Your task to perform on an android device: Open internet settings Image 0: 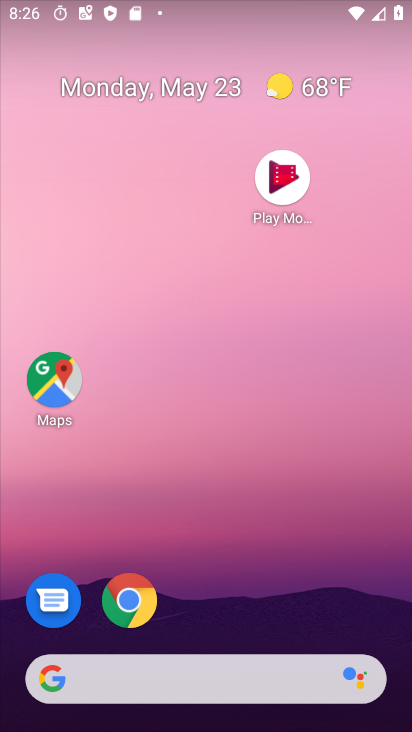
Step 0: drag from (266, 714) to (225, 260)
Your task to perform on an android device: Open internet settings Image 1: 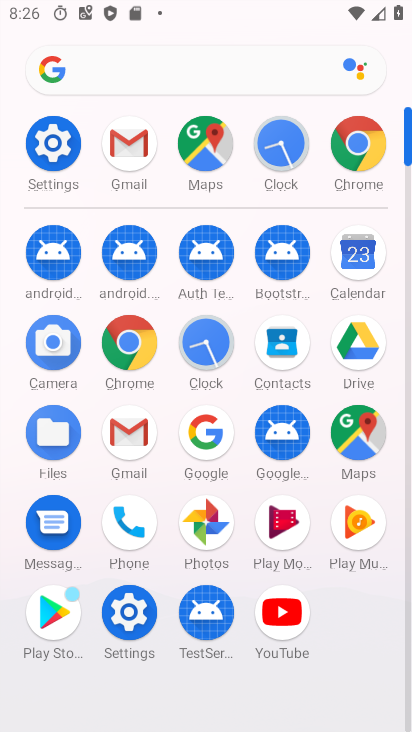
Step 1: click (59, 129)
Your task to perform on an android device: Open internet settings Image 2: 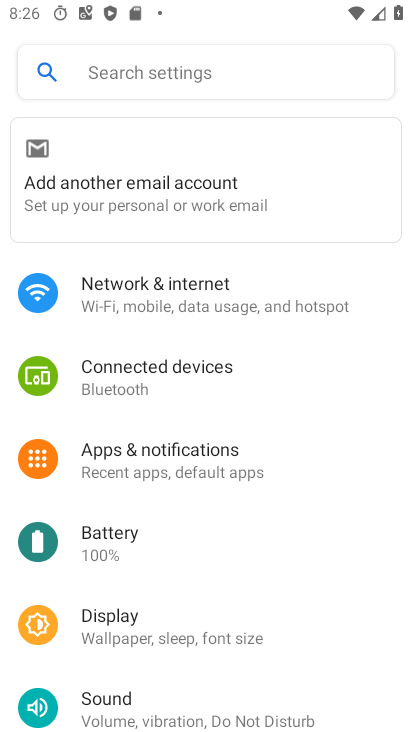
Step 2: click (162, 287)
Your task to perform on an android device: Open internet settings Image 3: 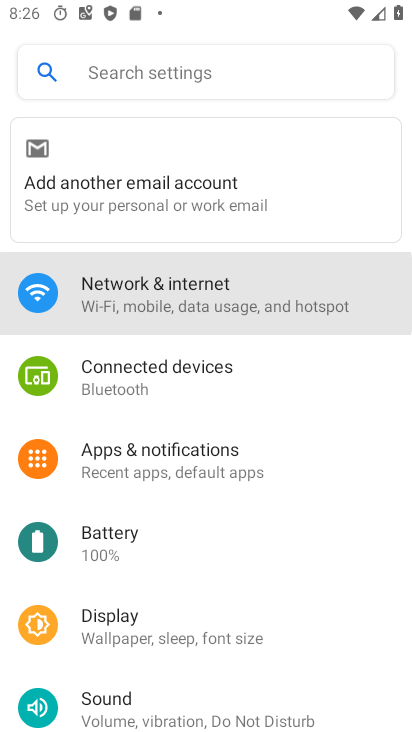
Step 3: click (162, 294)
Your task to perform on an android device: Open internet settings Image 4: 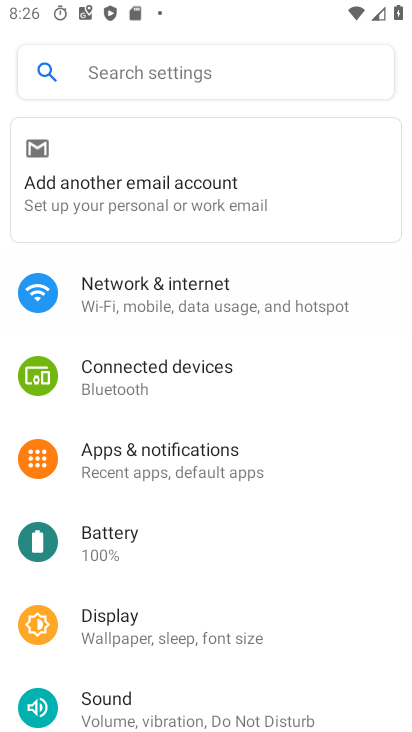
Step 4: click (162, 295)
Your task to perform on an android device: Open internet settings Image 5: 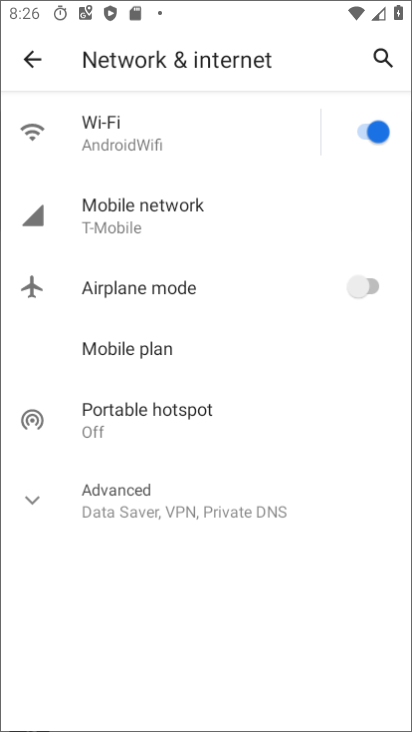
Step 5: click (162, 297)
Your task to perform on an android device: Open internet settings Image 6: 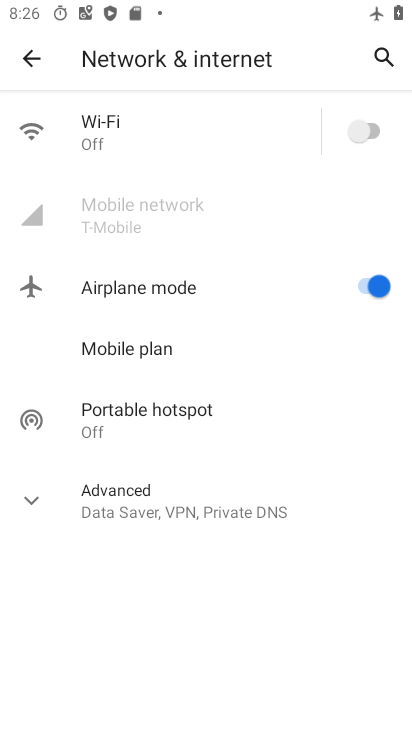
Step 6: click (370, 280)
Your task to perform on an android device: Open internet settings Image 7: 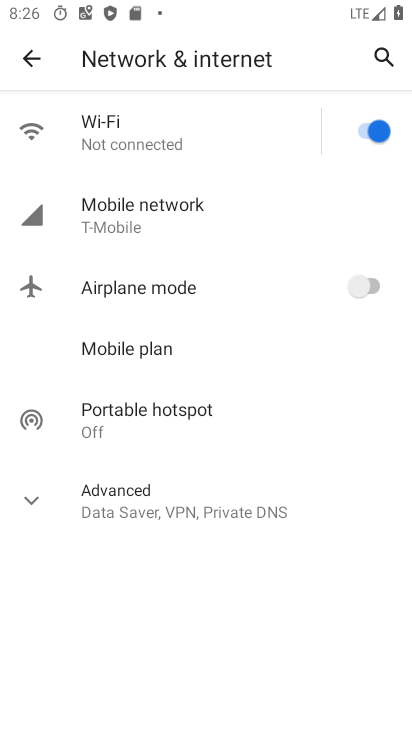
Step 7: click (124, 219)
Your task to perform on an android device: Open internet settings Image 8: 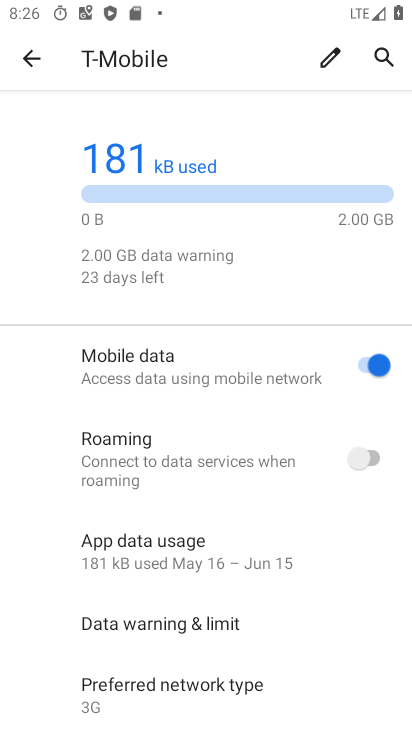
Step 8: drag from (191, 430) to (167, 166)
Your task to perform on an android device: Open internet settings Image 9: 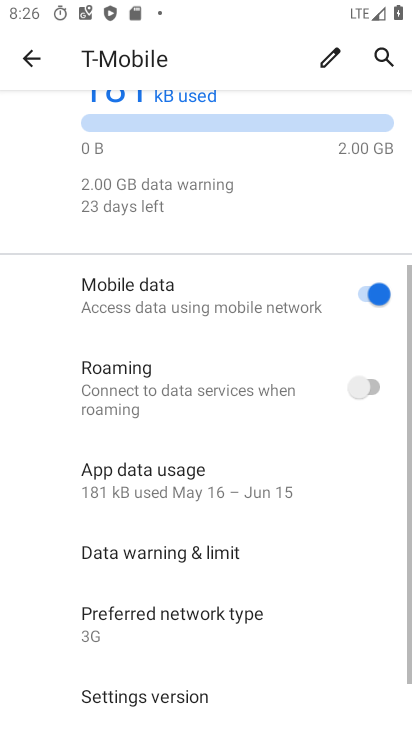
Step 9: drag from (189, 455) to (186, 124)
Your task to perform on an android device: Open internet settings Image 10: 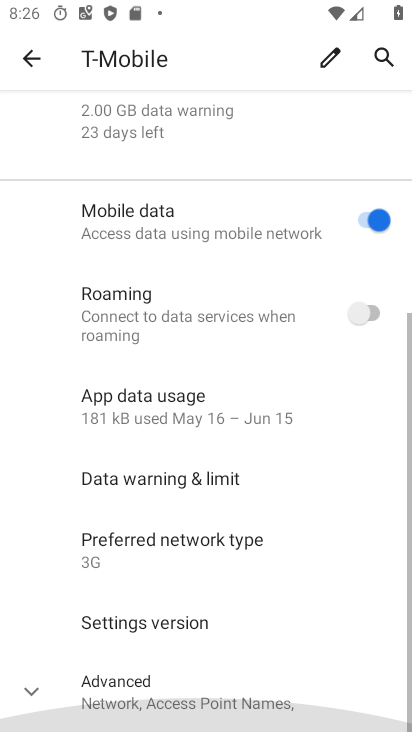
Step 10: drag from (229, 512) to (251, 106)
Your task to perform on an android device: Open internet settings Image 11: 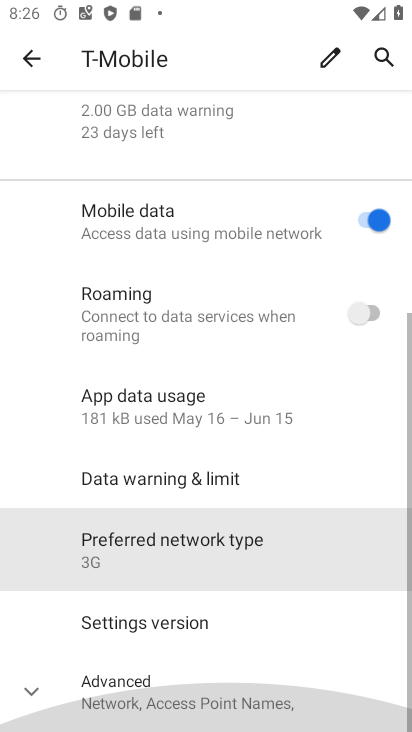
Step 11: drag from (277, 490) to (270, 80)
Your task to perform on an android device: Open internet settings Image 12: 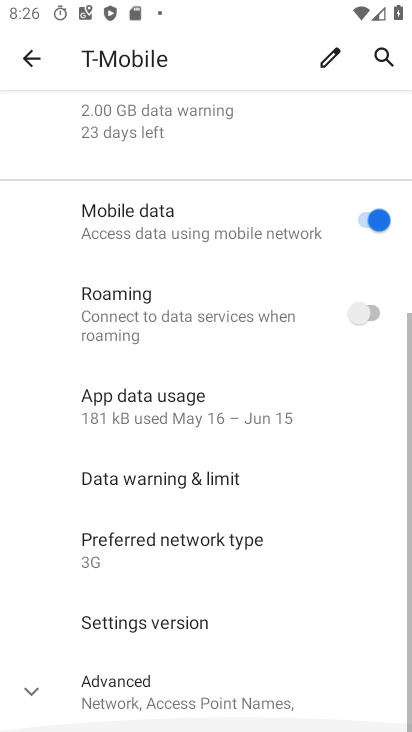
Step 12: drag from (261, 423) to (261, 68)
Your task to perform on an android device: Open internet settings Image 13: 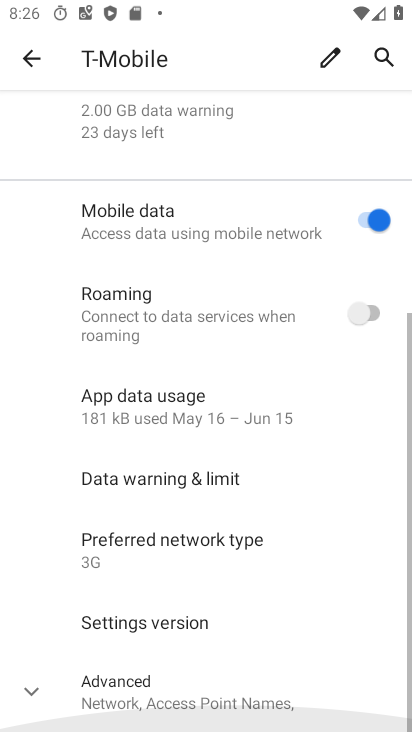
Step 13: drag from (188, 451) to (192, 120)
Your task to perform on an android device: Open internet settings Image 14: 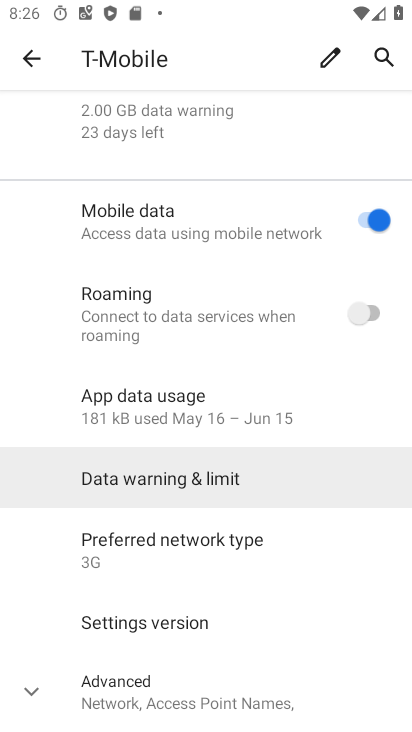
Step 14: drag from (200, 458) to (171, 135)
Your task to perform on an android device: Open internet settings Image 15: 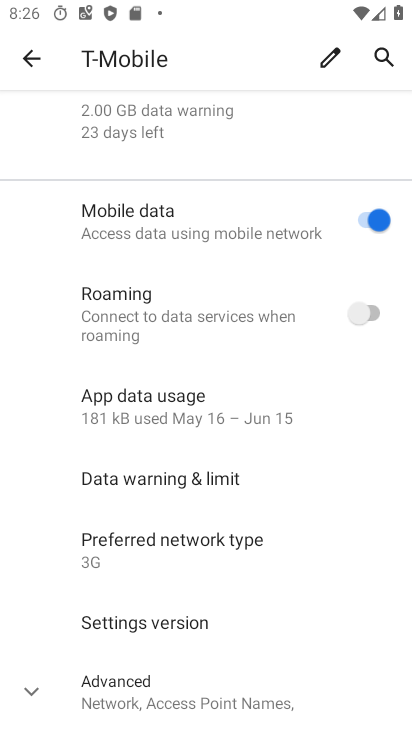
Step 15: click (32, 62)
Your task to perform on an android device: Open internet settings Image 16: 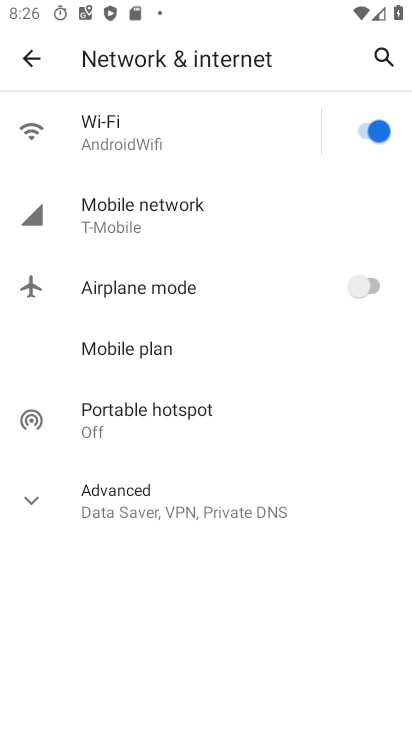
Step 16: task complete